Your task to perform on an android device: Open maps Image 0: 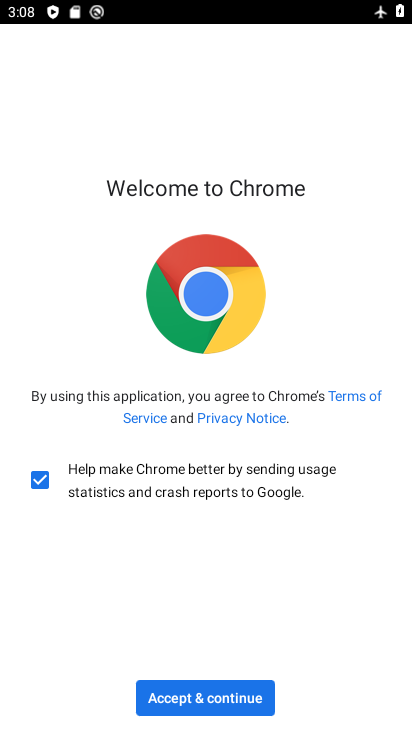
Step 0: press home button
Your task to perform on an android device: Open maps Image 1: 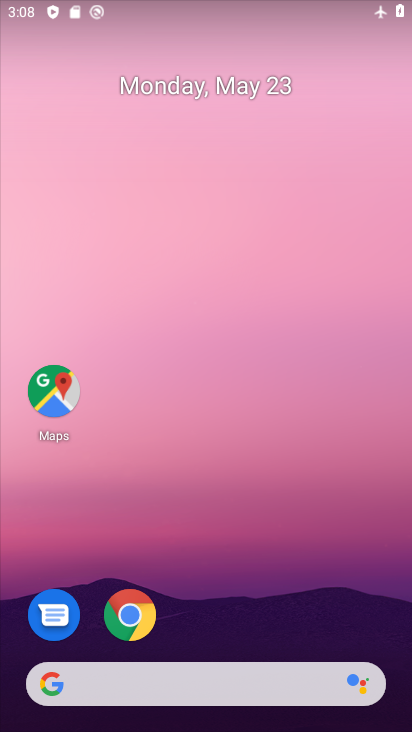
Step 1: click (35, 371)
Your task to perform on an android device: Open maps Image 2: 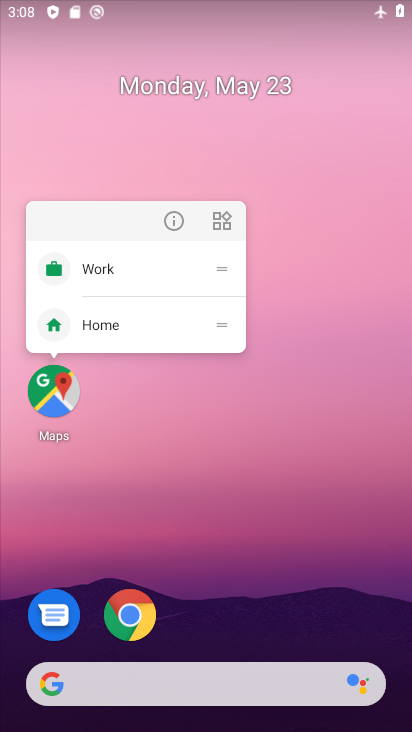
Step 2: click (66, 398)
Your task to perform on an android device: Open maps Image 3: 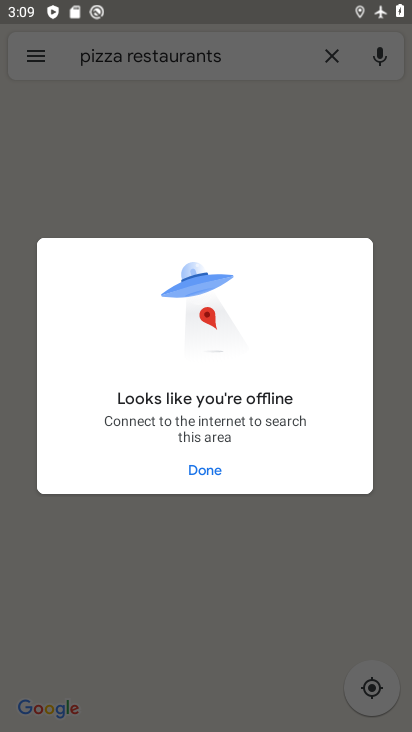
Step 3: task complete